Your task to perform on an android device: Show me productivity apps on the Play Store Image 0: 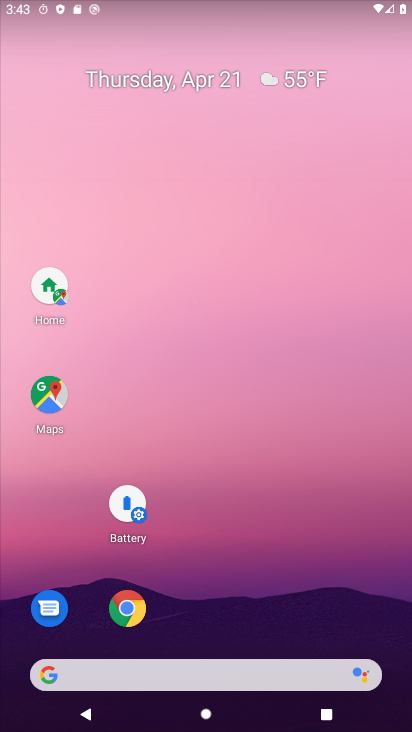
Step 0: drag from (264, 496) to (258, 17)
Your task to perform on an android device: Show me productivity apps on the Play Store Image 1: 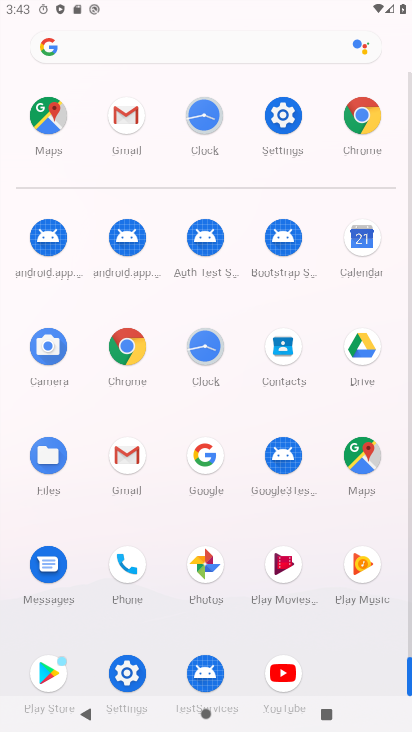
Step 1: click (52, 667)
Your task to perform on an android device: Show me productivity apps on the Play Store Image 2: 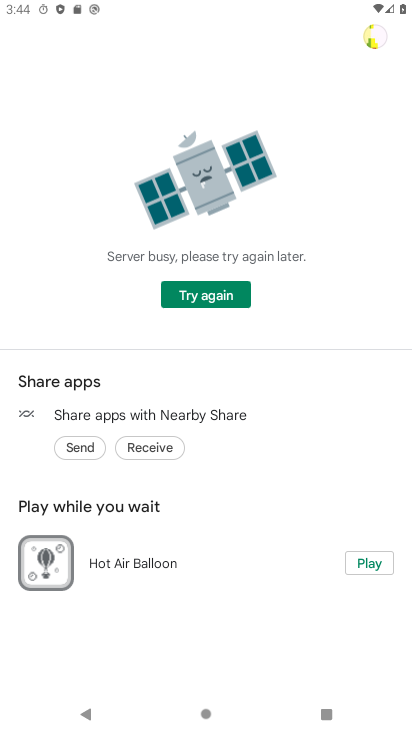
Step 2: click (219, 292)
Your task to perform on an android device: Show me productivity apps on the Play Store Image 3: 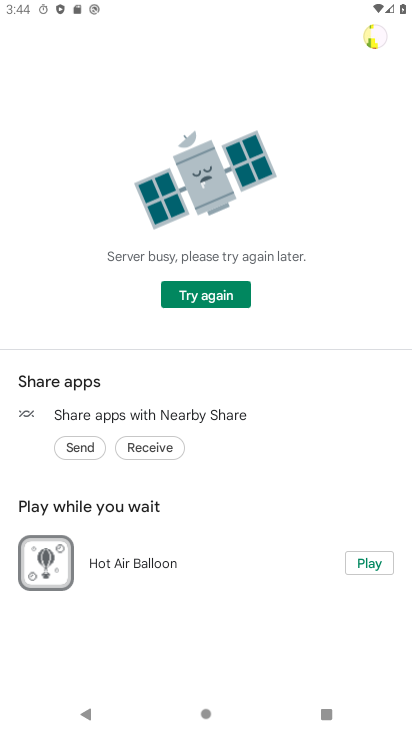
Step 3: press home button
Your task to perform on an android device: Show me productivity apps on the Play Store Image 4: 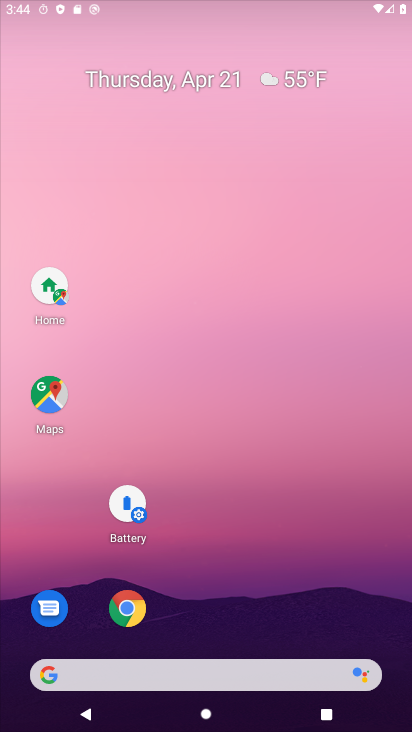
Step 4: drag from (329, 465) to (257, 62)
Your task to perform on an android device: Show me productivity apps on the Play Store Image 5: 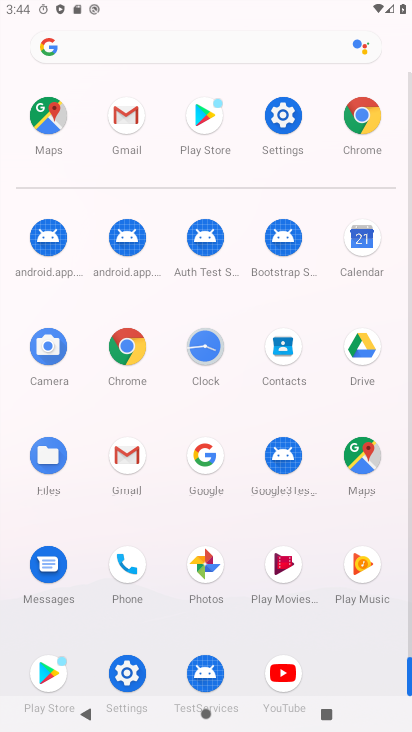
Step 5: click (206, 119)
Your task to perform on an android device: Show me productivity apps on the Play Store Image 6: 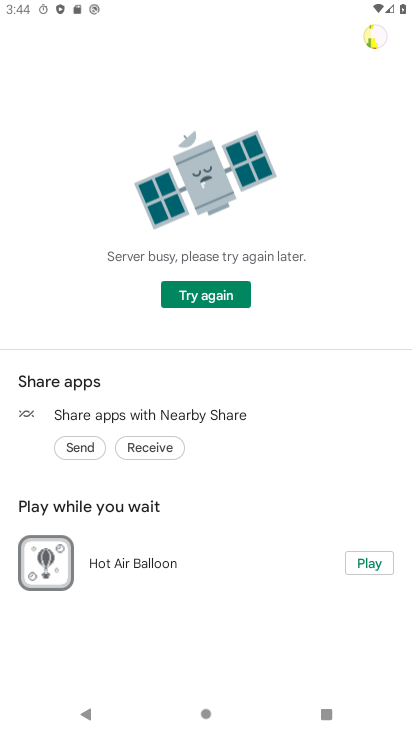
Step 6: task complete